Your task to perform on an android device: Open wifi settings Image 0: 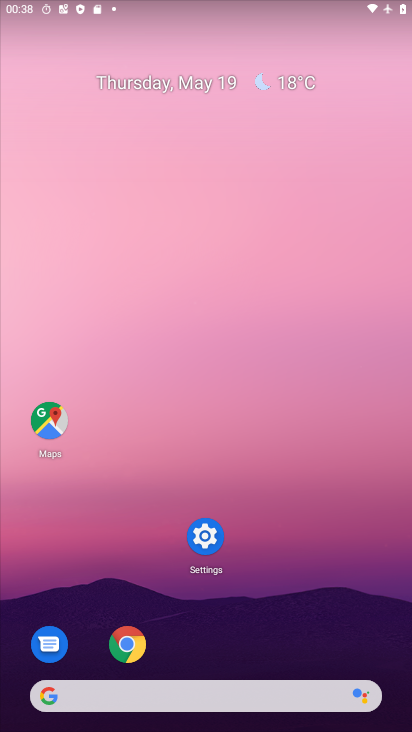
Step 0: drag from (310, 577) to (310, 186)
Your task to perform on an android device: Open wifi settings Image 1: 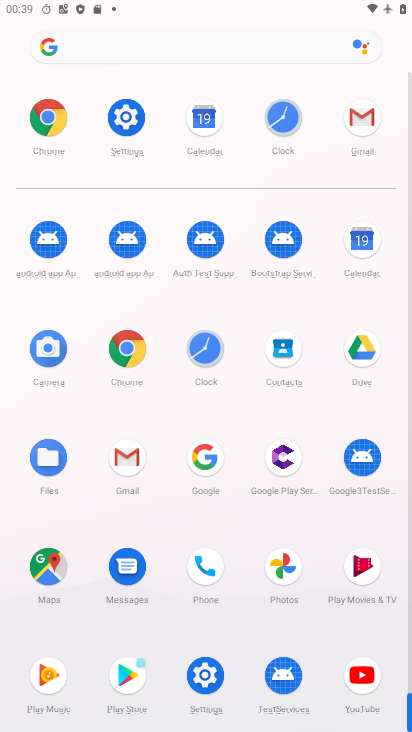
Step 1: click (128, 118)
Your task to perform on an android device: Open wifi settings Image 2: 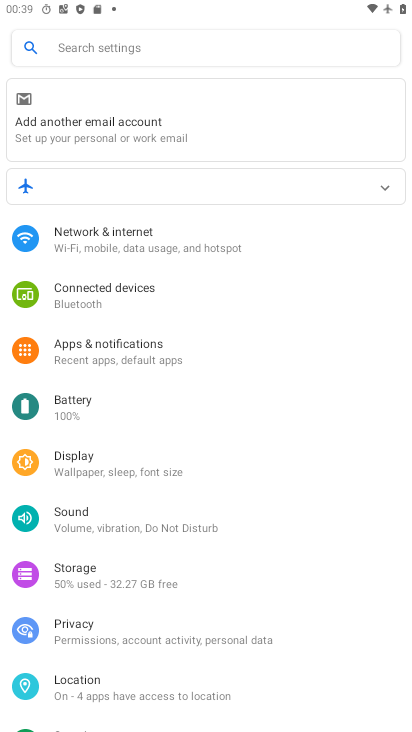
Step 2: click (137, 235)
Your task to perform on an android device: Open wifi settings Image 3: 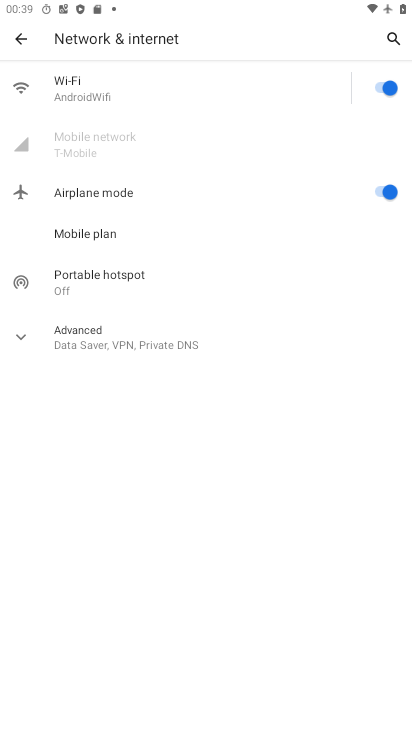
Step 3: click (154, 96)
Your task to perform on an android device: Open wifi settings Image 4: 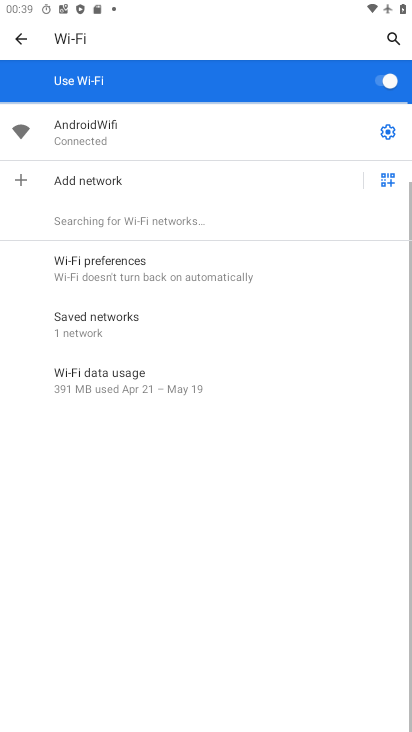
Step 4: click (378, 133)
Your task to perform on an android device: Open wifi settings Image 5: 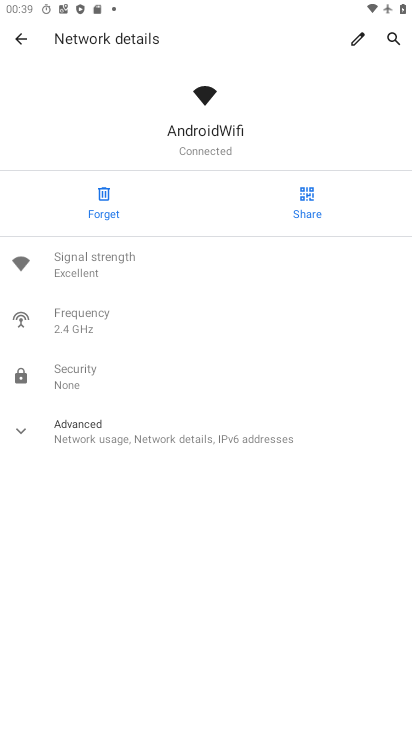
Step 5: task complete